Your task to perform on an android device: Open Google Chrome Image 0: 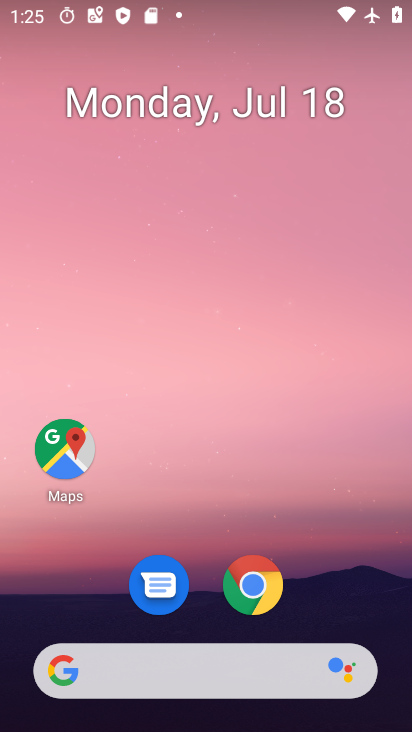
Step 0: click (256, 578)
Your task to perform on an android device: Open Google Chrome Image 1: 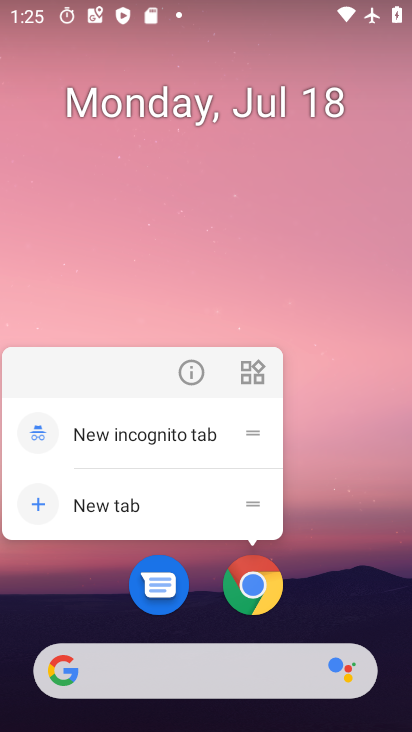
Step 1: click (257, 577)
Your task to perform on an android device: Open Google Chrome Image 2: 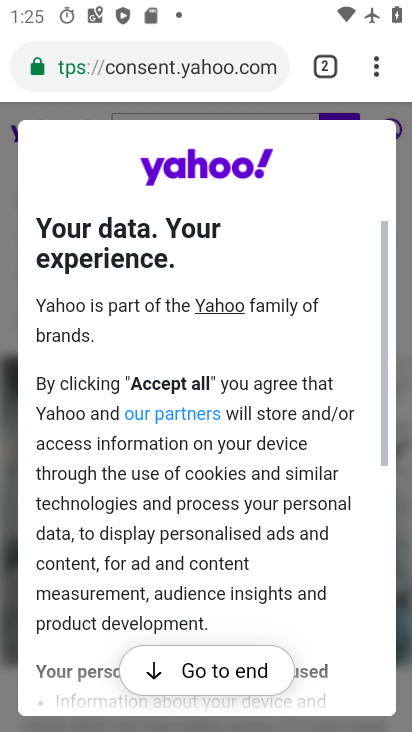
Step 2: task complete